Your task to perform on an android device: check out phone information Image 0: 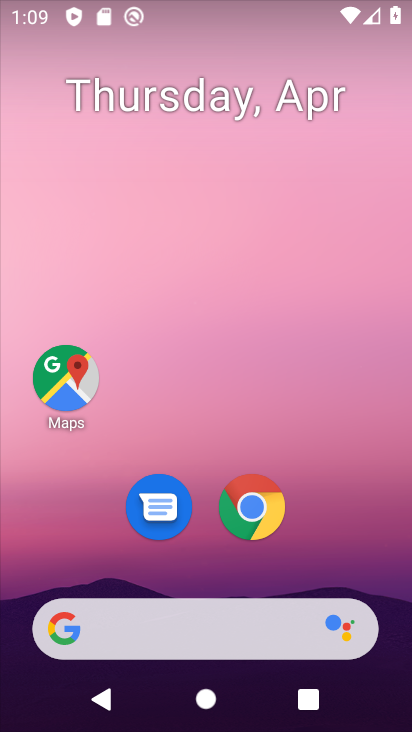
Step 0: drag from (211, 487) to (265, 3)
Your task to perform on an android device: check out phone information Image 1: 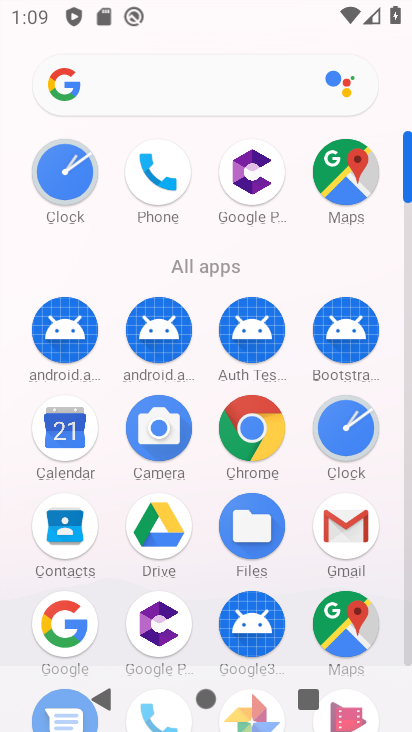
Step 1: drag from (228, 487) to (269, 87)
Your task to perform on an android device: check out phone information Image 2: 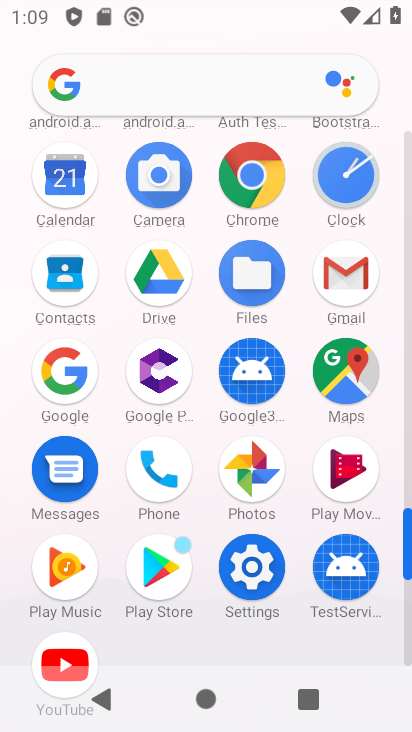
Step 2: drag from (254, 561) to (104, 220)
Your task to perform on an android device: check out phone information Image 3: 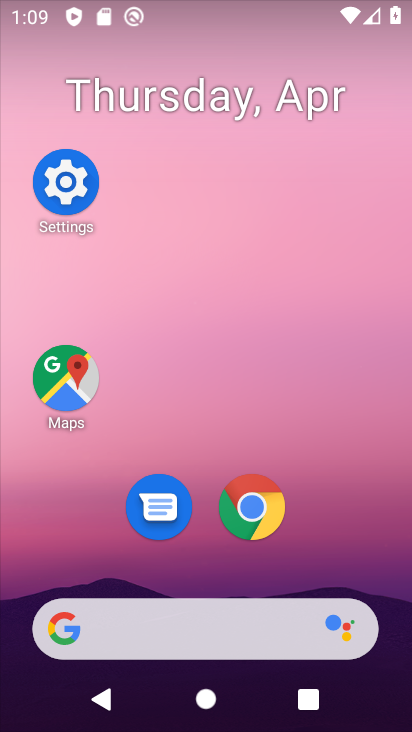
Step 3: click (78, 171)
Your task to perform on an android device: check out phone information Image 4: 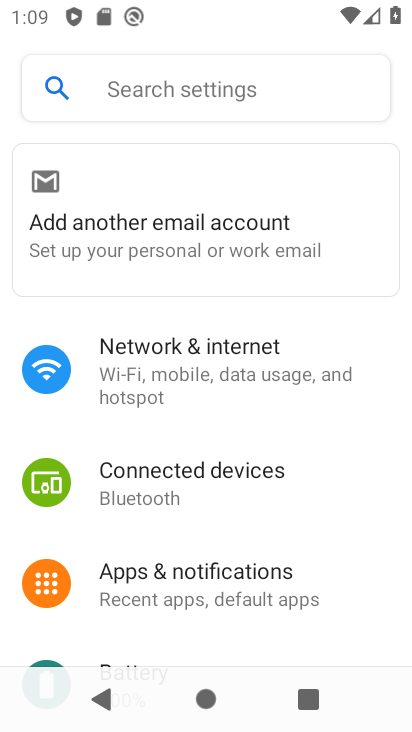
Step 4: drag from (232, 521) to (247, 48)
Your task to perform on an android device: check out phone information Image 5: 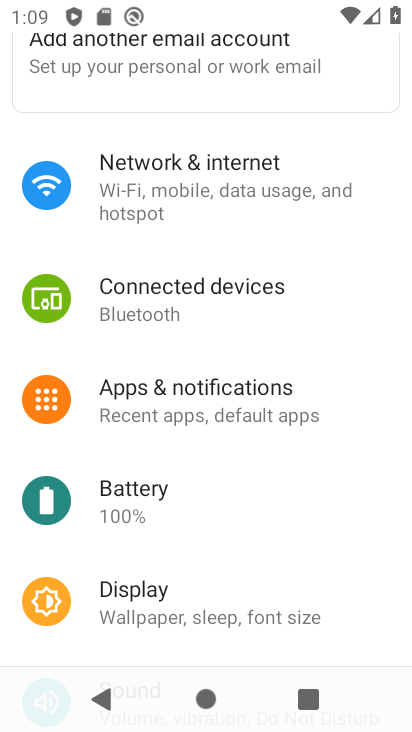
Step 5: drag from (230, 521) to (172, 0)
Your task to perform on an android device: check out phone information Image 6: 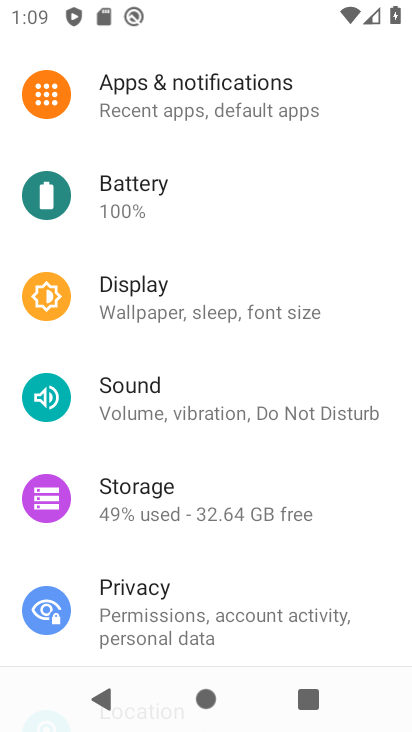
Step 6: drag from (203, 598) to (205, 44)
Your task to perform on an android device: check out phone information Image 7: 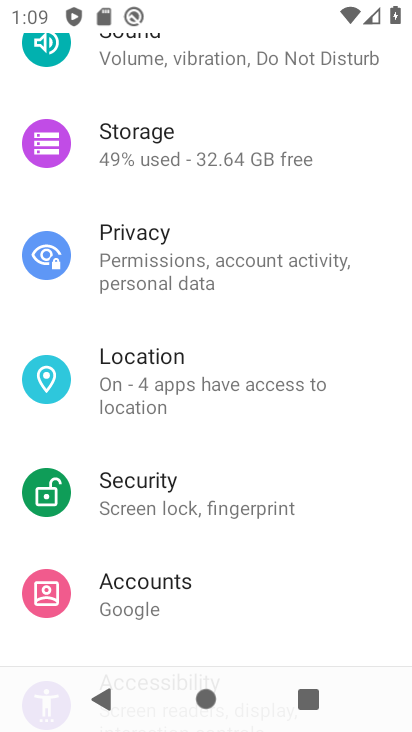
Step 7: drag from (319, 555) to (271, 31)
Your task to perform on an android device: check out phone information Image 8: 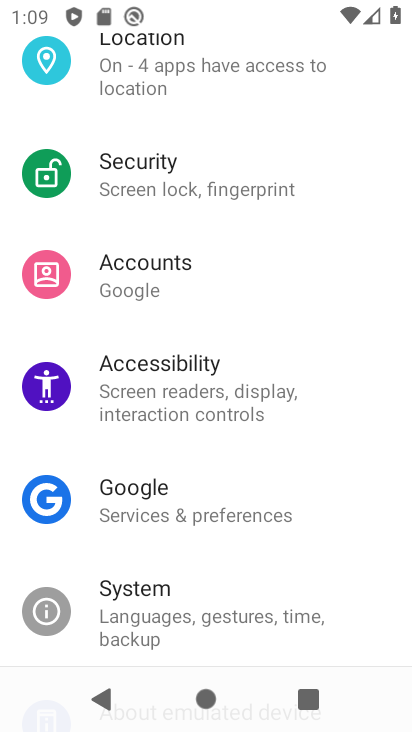
Step 8: drag from (254, 582) to (206, 97)
Your task to perform on an android device: check out phone information Image 9: 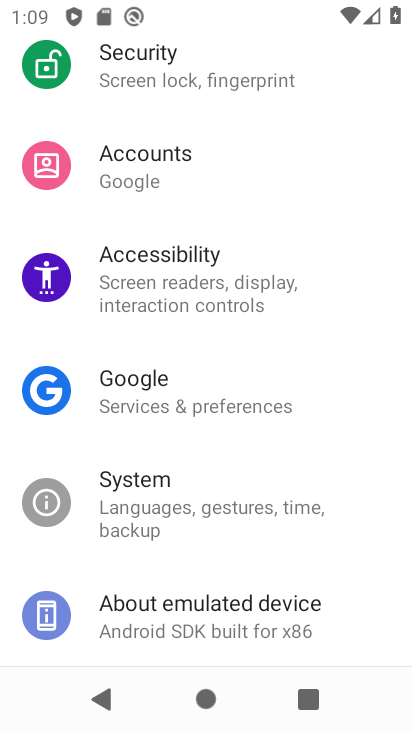
Step 9: click (228, 605)
Your task to perform on an android device: check out phone information Image 10: 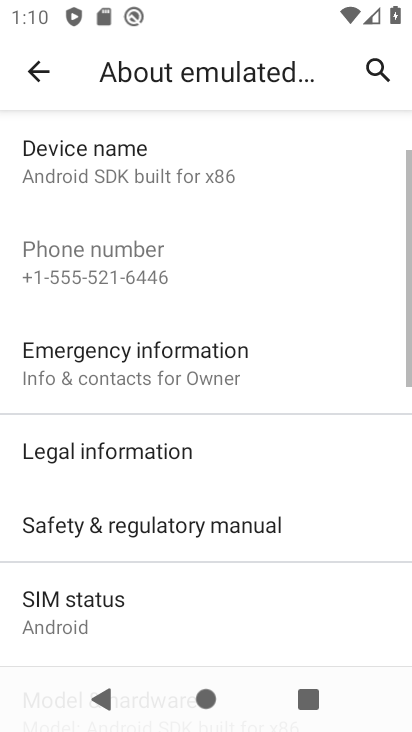
Step 10: drag from (291, 536) to (302, 148)
Your task to perform on an android device: check out phone information Image 11: 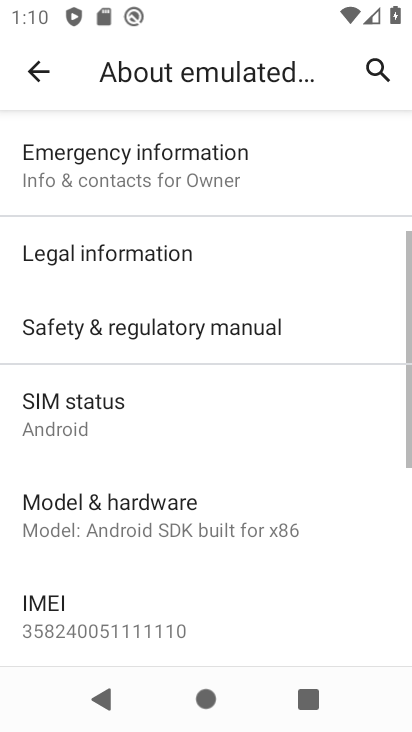
Step 11: click (256, 504)
Your task to perform on an android device: check out phone information Image 12: 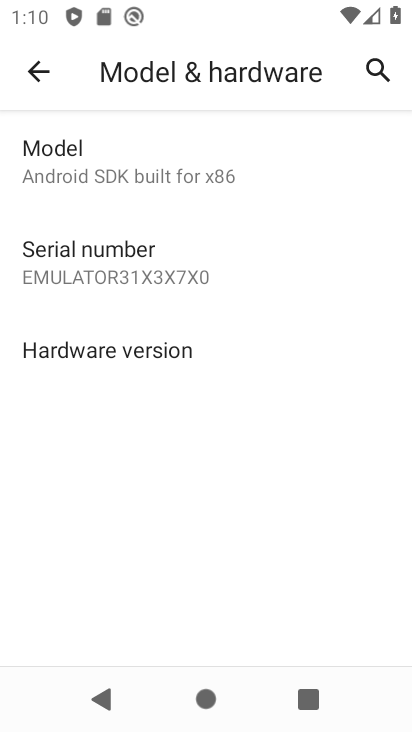
Step 12: task complete